Your task to perform on an android device: change notification settings in the gmail app Image 0: 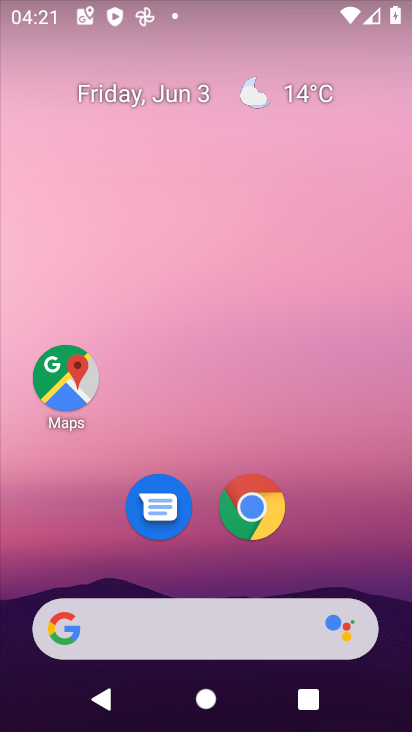
Step 0: press home button
Your task to perform on an android device: change notification settings in the gmail app Image 1: 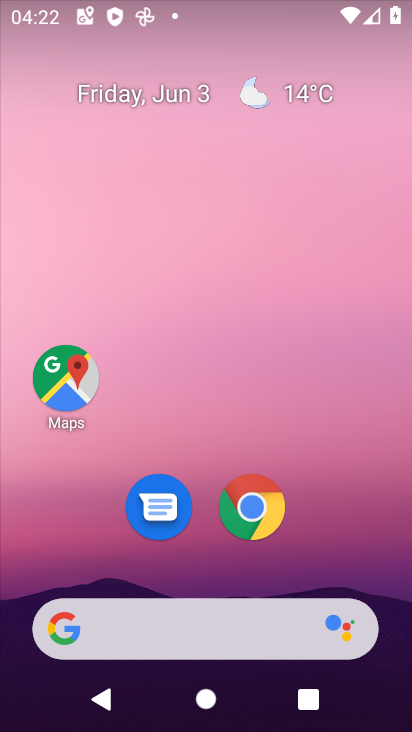
Step 1: drag from (320, 572) to (268, 163)
Your task to perform on an android device: change notification settings in the gmail app Image 2: 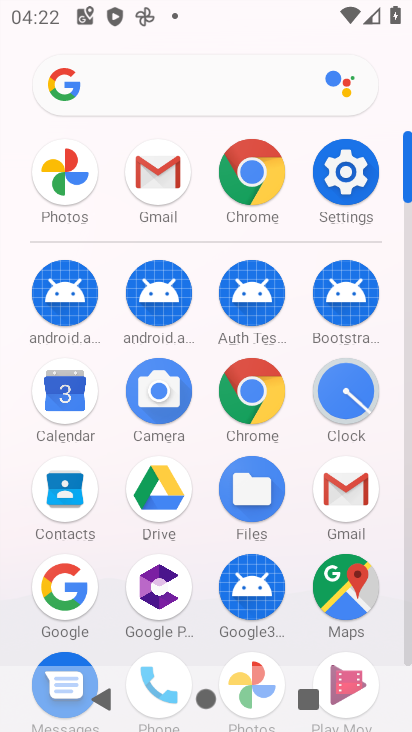
Step 2: click (156, 174)
Your task to perform on an android device: change notification settings in the gmail app Image 3: 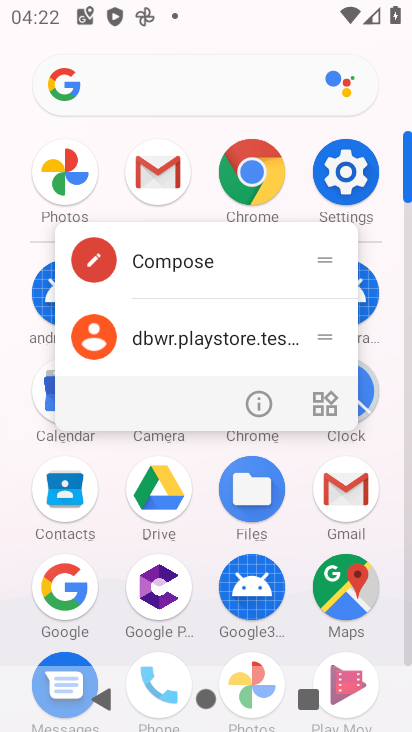
Step 3: click (164, 185)
Your task to perform on an android device: change notification settings in the gmail app Image 4: 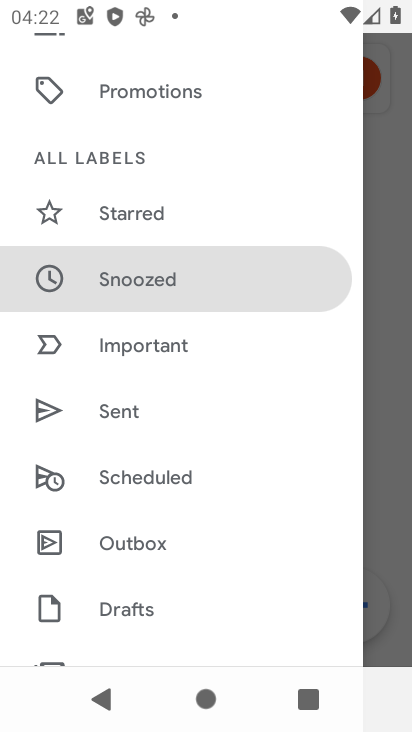
Step 4: drag from (226, 541) to (191, 63)
Your task to perform on an android device: change notification settings in the gmail app Image 5: 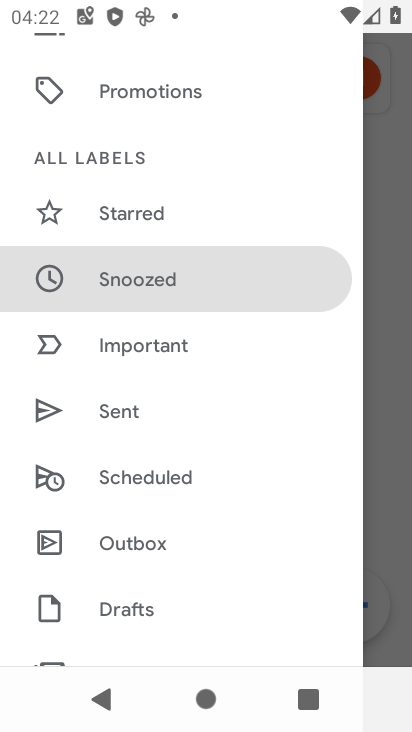
Step 5: drag from (220, 531) to (190, 54)
Your task to perform on an android device: change notification settings in the gmail app Image 6: 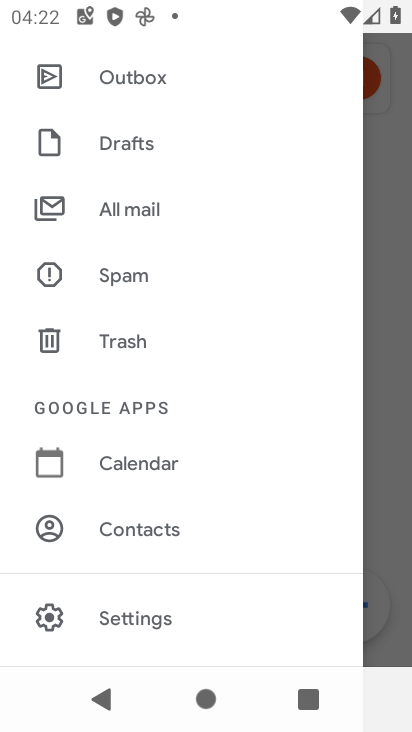
Step 6: click (131, 606)
Your task to perform on an android device: change notification settings in the gmail app Image 7: 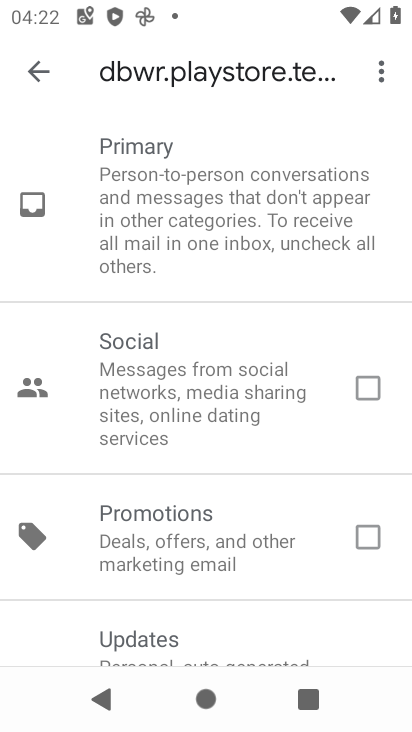
Step 7: click (30, 73)
Your task to perform on an android device: change notification settings in the gmail app Image 8: 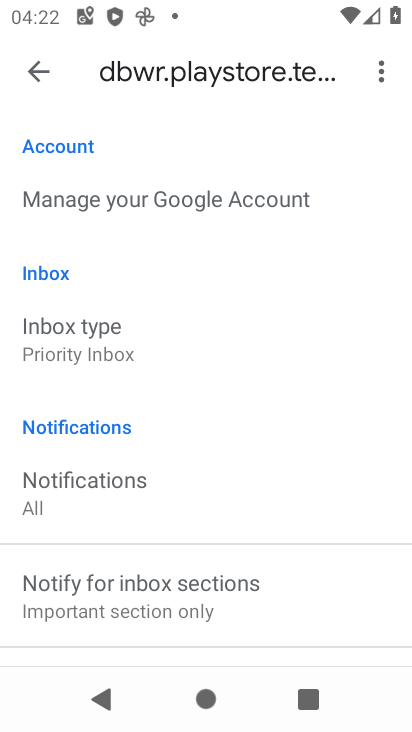
Step 8: click (39, 78)
Your task to perform on an android device: change notification settings in the gmail app Image 9: 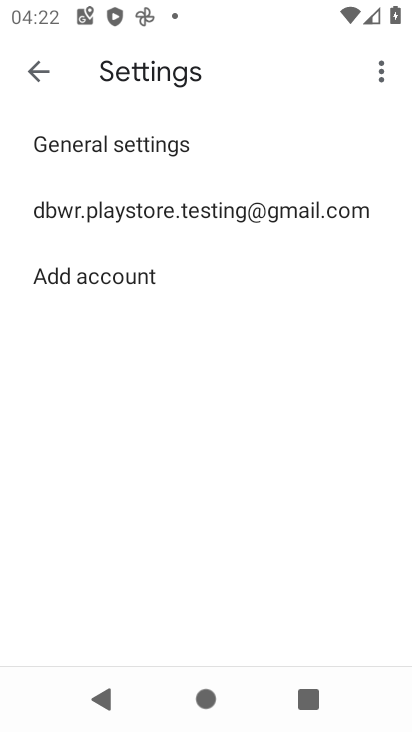
Step 9: click (107, 152)
Your task to perform on an android device: change notification settings in the gmail app Image 10: 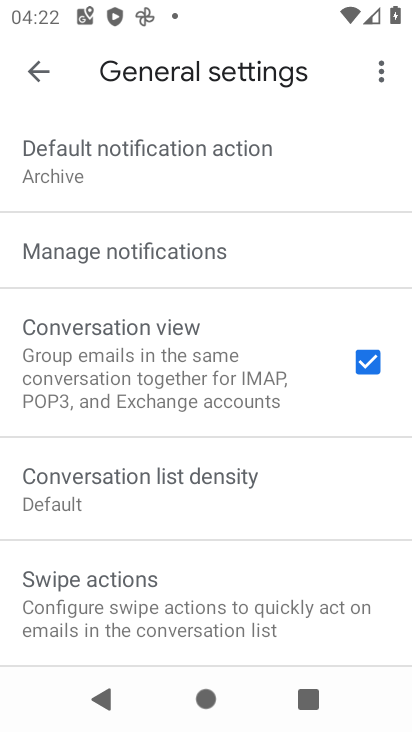
Step 10: click (122, 252)
Your task to perform on an android device: change notification settings in the gmail app Image 11: 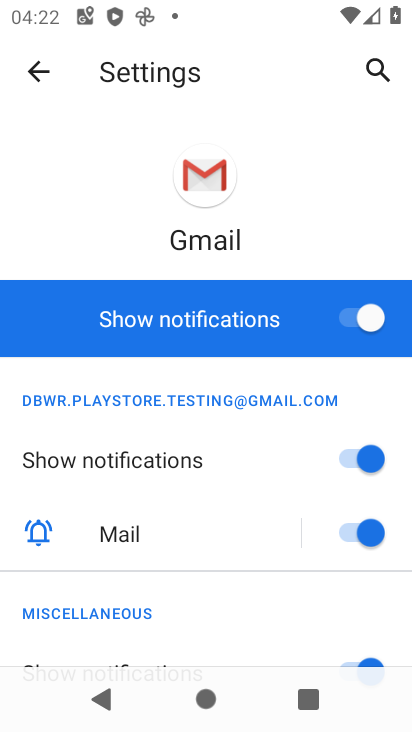
Step 11: click (373, 320)
Your task to perform on an android device: change notification settings in the gmail app Image 12: 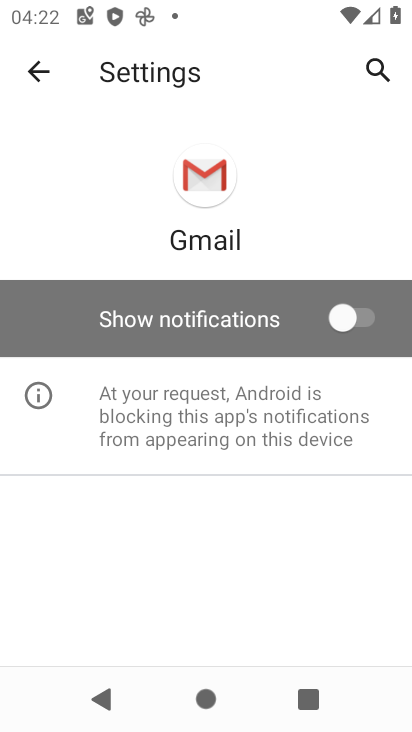
Step 12: task complete